Your task to perform on an android device: search for starred emails in the gmail app Image 0: 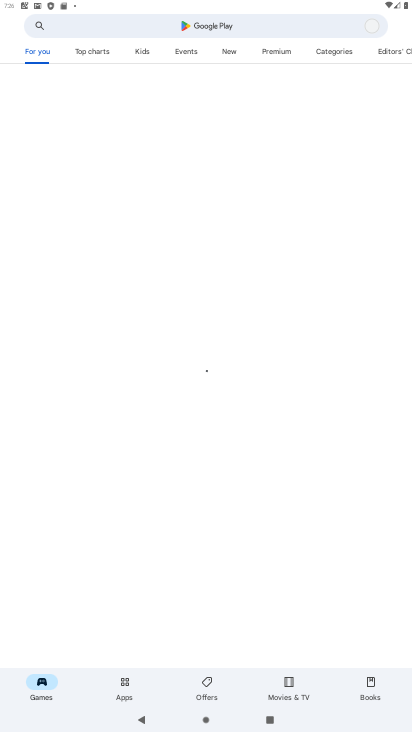
Step 0: press home button
Your task to perform on an android device: search for starred emails in the gmail app Image 1: 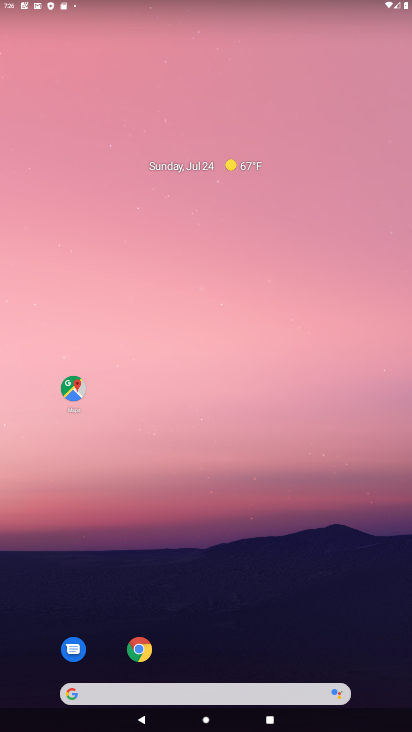
Step 1: drag from (193, 661) to (101, 239)
Your task to perform on an android device: search for starred emails in the gmail app Image 2: 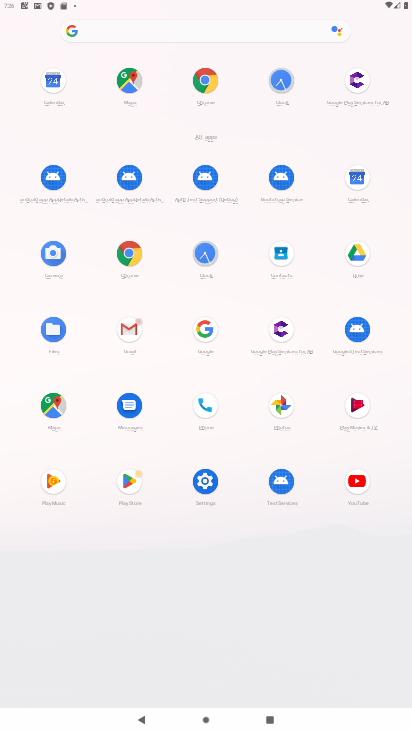
Step 2: click (136, 325)
Your task to perform on an android device: search for starred emails in the gmail app Image 3: 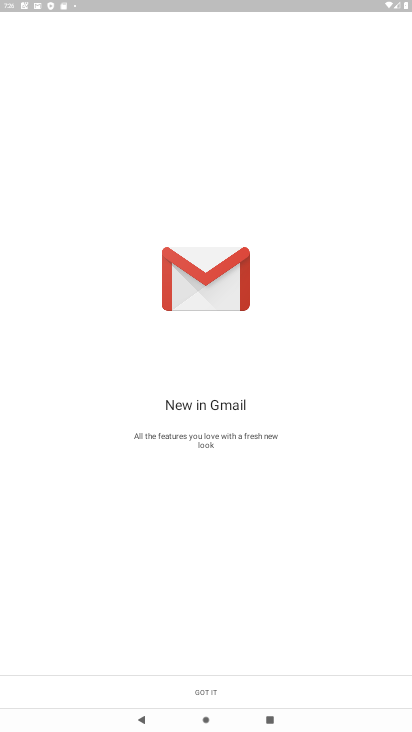
Step 3: click (230, 699)
Your task to perform on an android device: search for starred emails in the gmail app Image 4: 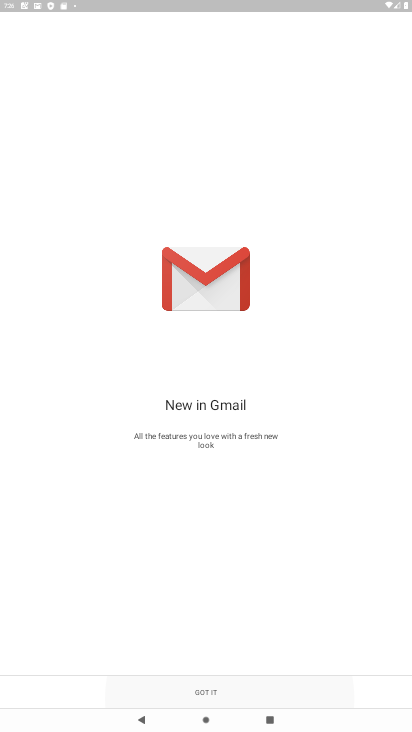
Step 4: click (230, 699)
Your task to perform on an android device: search for starred emails in the gmail app Image 5: 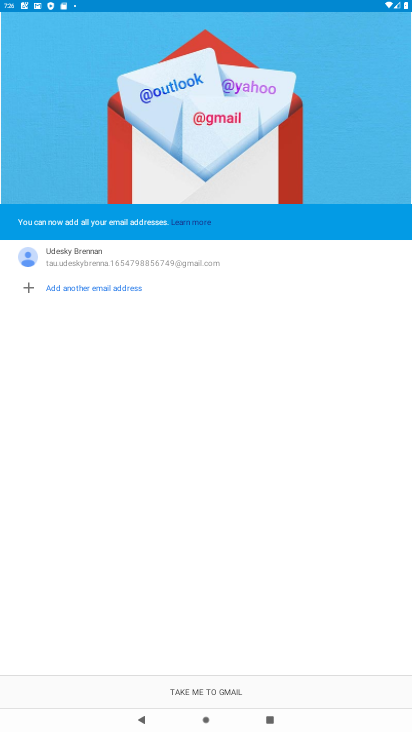
Step 5: click (222, 692)
Your task to perform on an android device: search for starred emails in the gmail app Image 6: 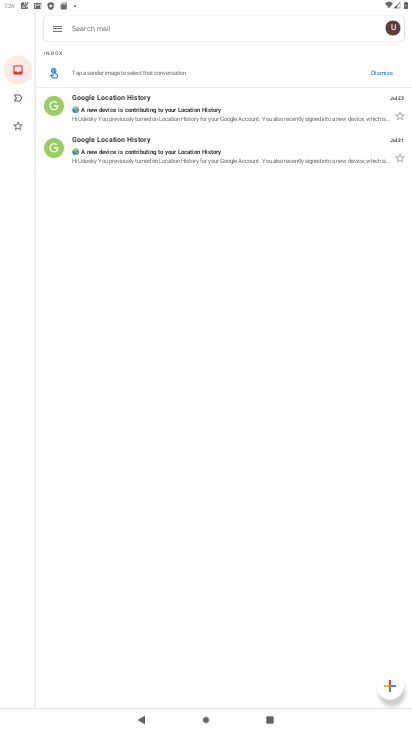
Step 6: click (55, 25)
Your task to perform on an android device: search for starred emails in the gmail app Image 7: 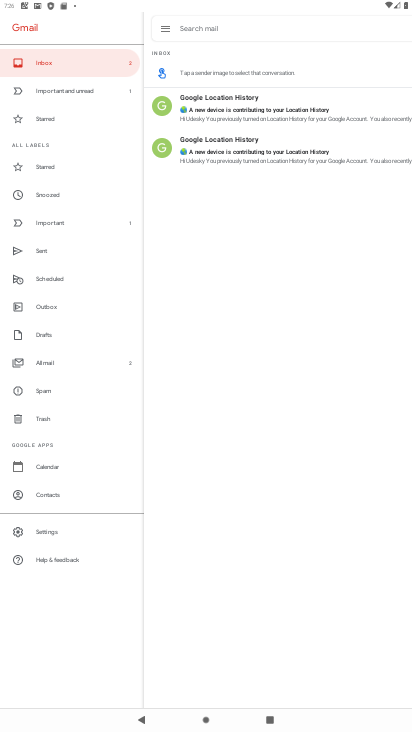
Step 7: click (61, 170)
Your task to perform on an android device: search for starred emails in the gmail app Image 8: 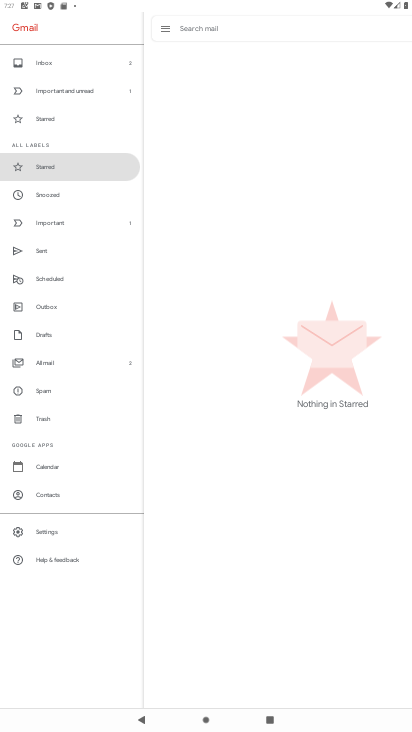
Step 8: task complete